Your task to perform on an android device: delete location history Image 0: 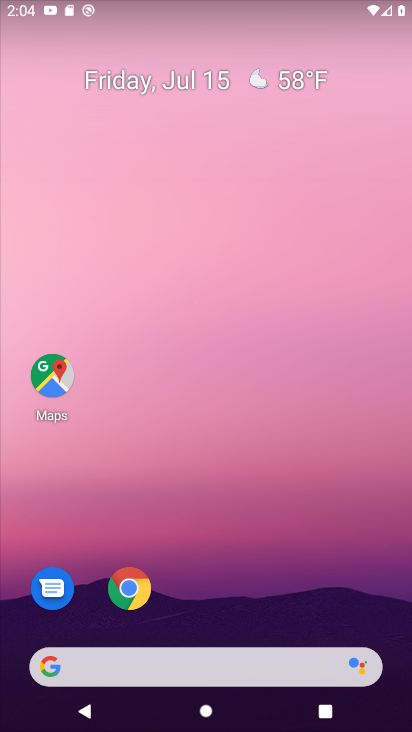
Step 0: click (46, 377)
Your task to perform on an android device: delete location history Image 1: 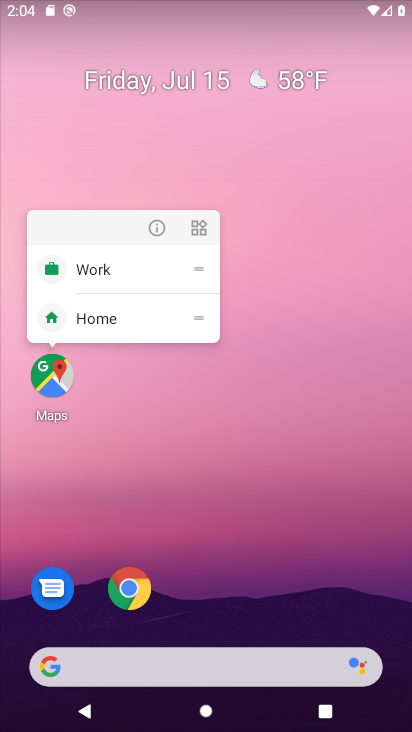
Step 1: click (46, 377)
Your task to perform on an android device: delete location history Image 2: 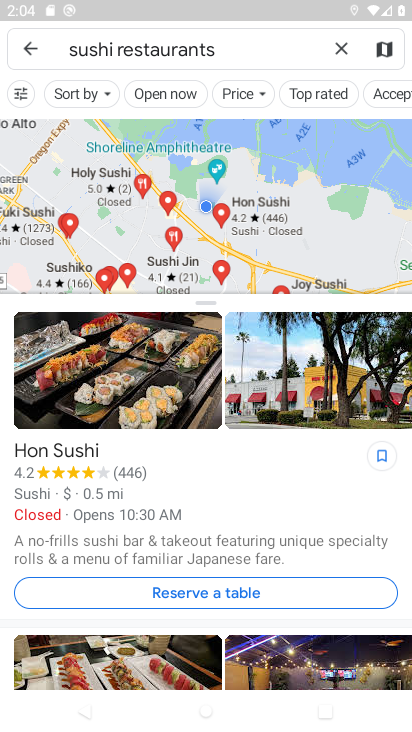
Step 2: click (27, 42)
Your task to perform on an android device: delete location history Image 3: 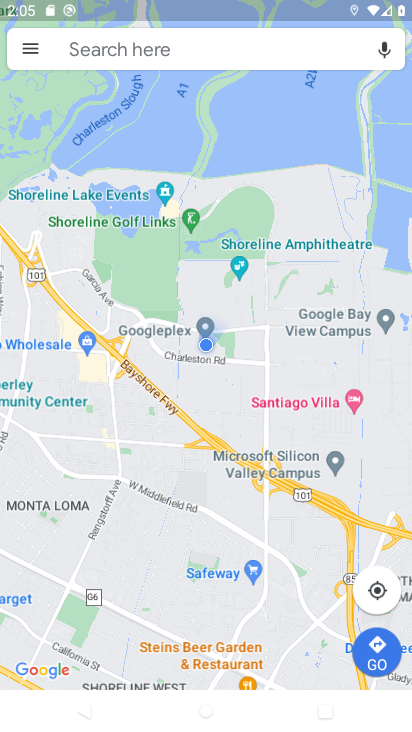
Step 3: click (28, 36)
Your task to perform on an android device: delete location history Image 4: 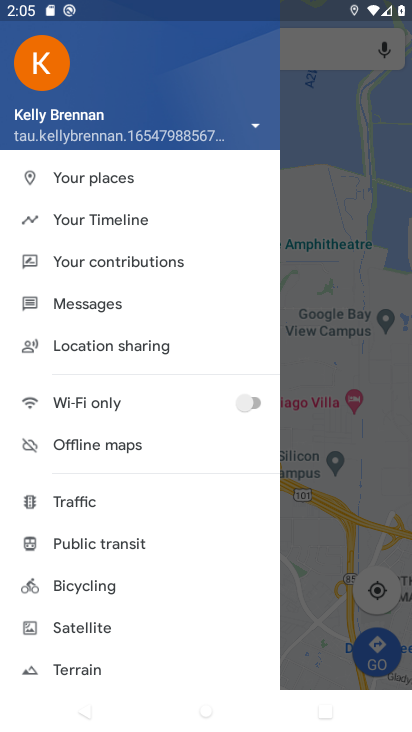
Step 4: click (124, 220)
Your task to perform on an android device: delete location history Image 5: 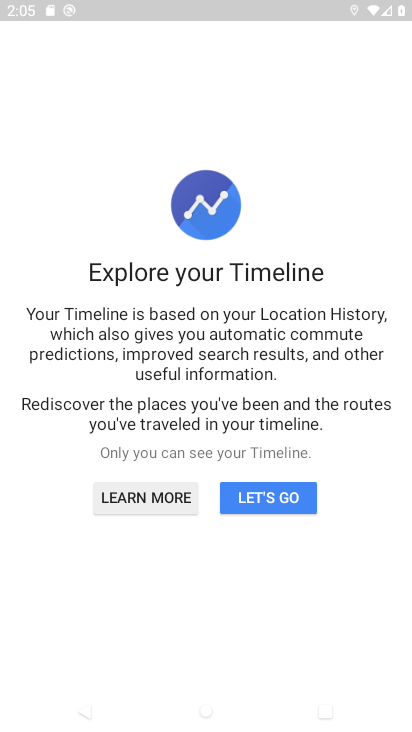
Step 5: click (282, 493)
Your task to perform on an android device: delete location history Image 6: 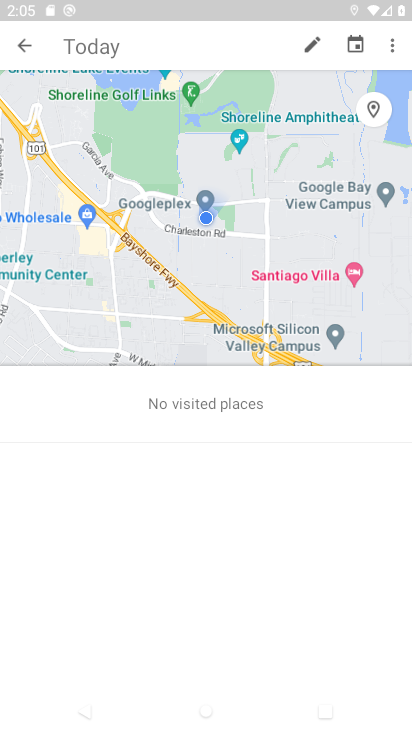
Step 6: click (394, 39)
Your task to perform on an android device: delete location history Image 7: 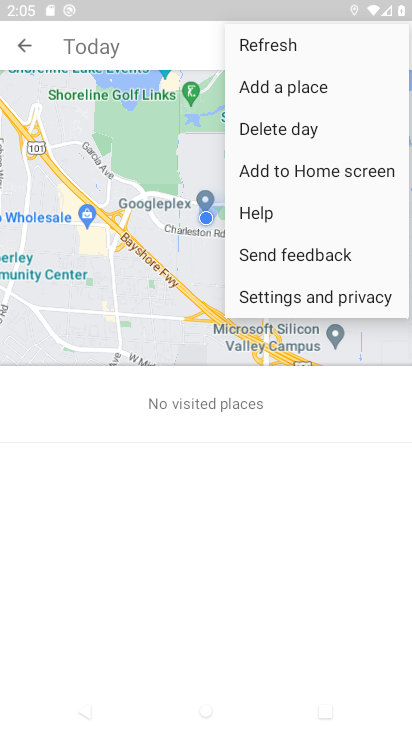
Step 7: click (305, 291)
Your task to perform on an android device: delete location history Image 8: 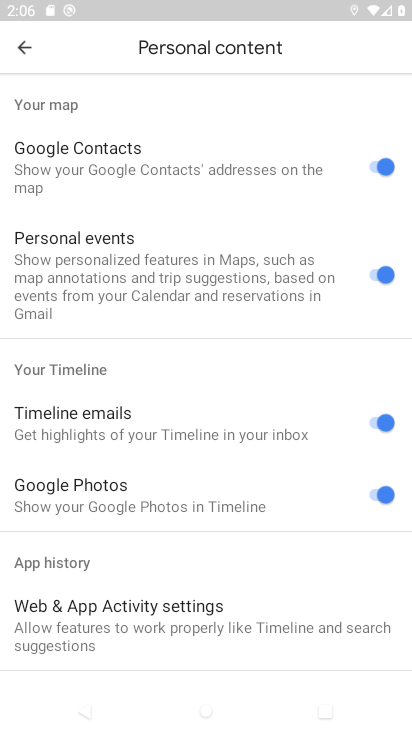
Step 8: drag from (144, 519) to (147, 130)
Your task to perform on an android device: delete location history Image 9: 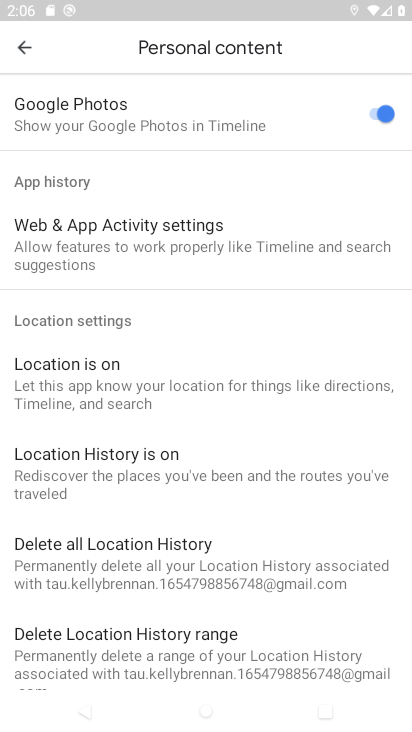
Step 9: click (149, 550)
Your task to perform on an android device: delete location history Image 10: 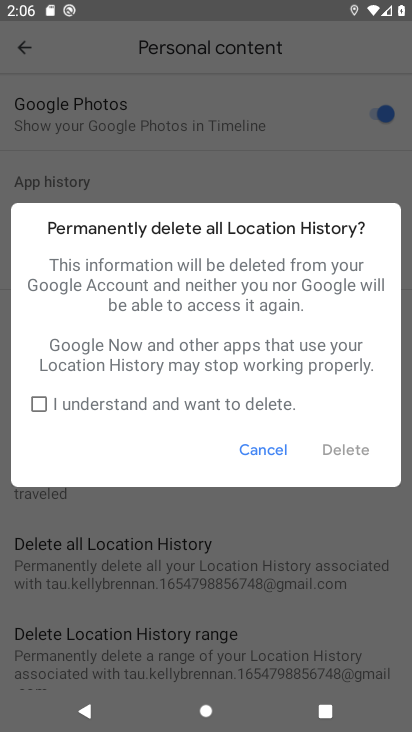
Step 10: click (171, 410)
Your task to perform on an android device: delete location history Image 11: 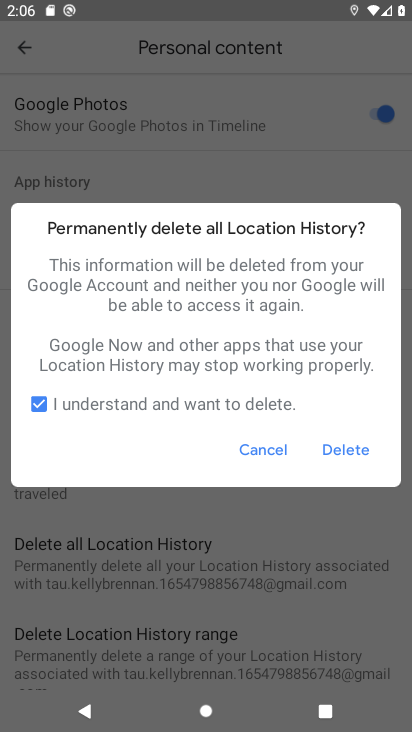
Step 11: click (335, 446)
Your task to perform on an android device: delete location history Image 12: 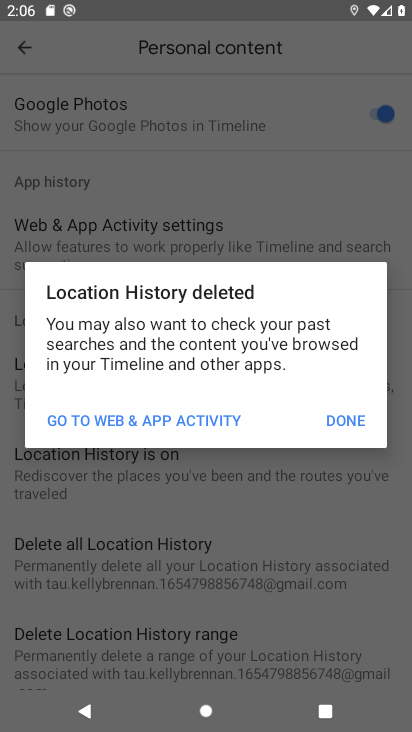
Step 12: click (356, 420)
Your task to perform on an android device: delete location history Image 13: 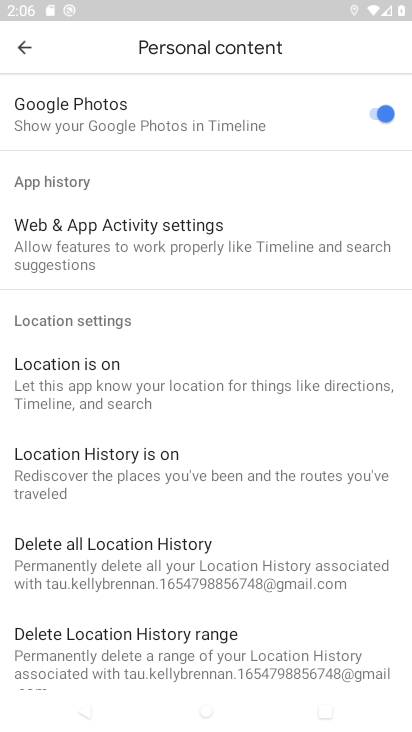
Step 13: task complete